Your task to perform on an android device: Open sound settings Image 0: 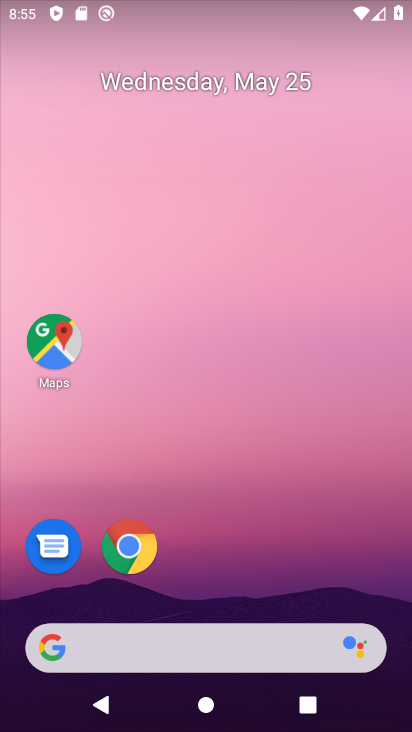
Step 0: drag from (273, 565) to (288, 196)
Your task to perform on an android device: Open sound settings Image 1: 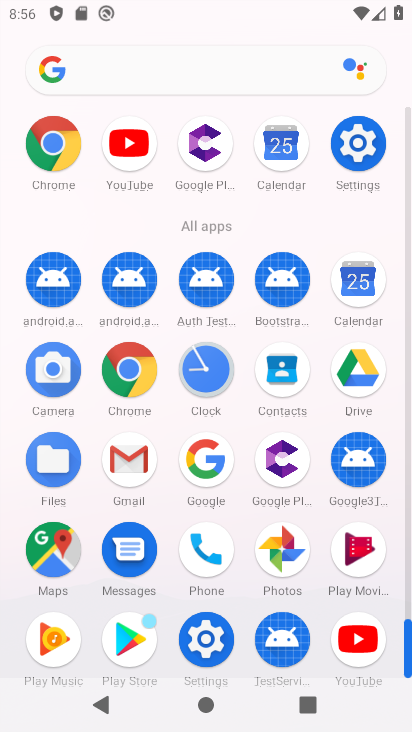
Step 1: click (367, 142)
Your task to perform on an android device: Open sound settings Image 2: 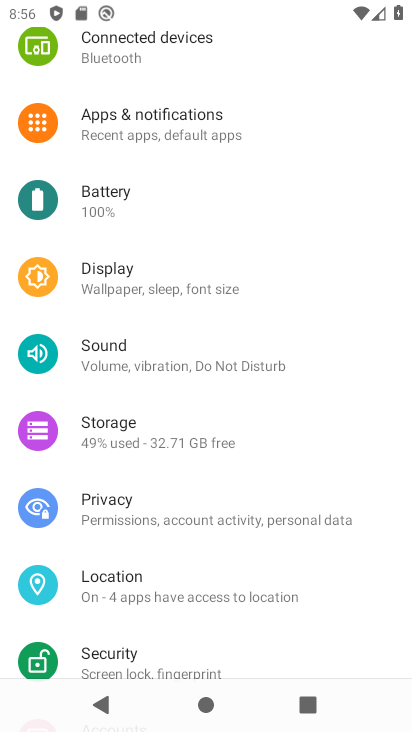
Step 2: click (151, 342)
Your task to perform on an android device: Open sound settings Image 3: 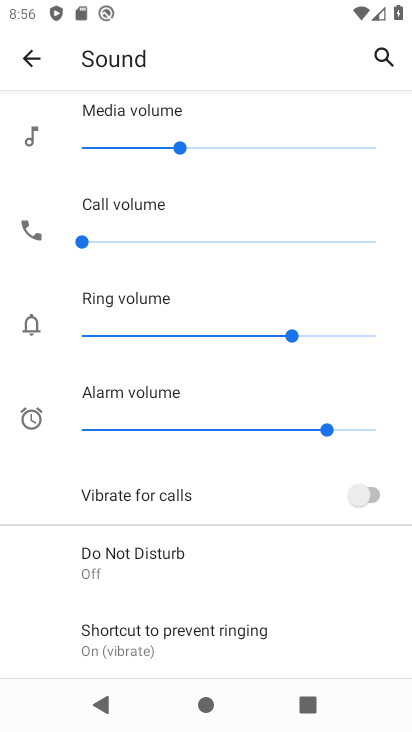
Step 3: task complete